Your task to perform on an android device: open sync settings in chrome Image 0: 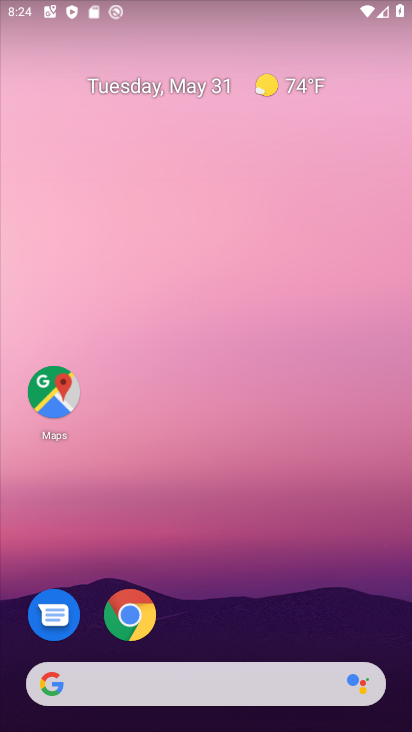
Step 0: click (135, 624)
Your task to perform on an android device: open sync settings in chrome Image 1: 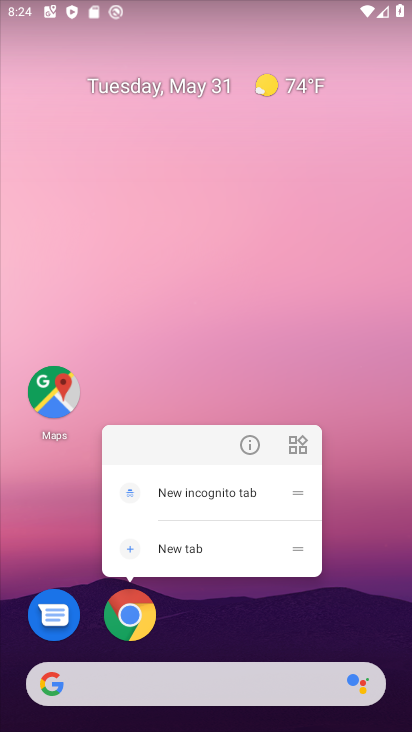
Step 1: click (117, 623)
Your task to perform on an android device: open sync settings in chrome Image 2: 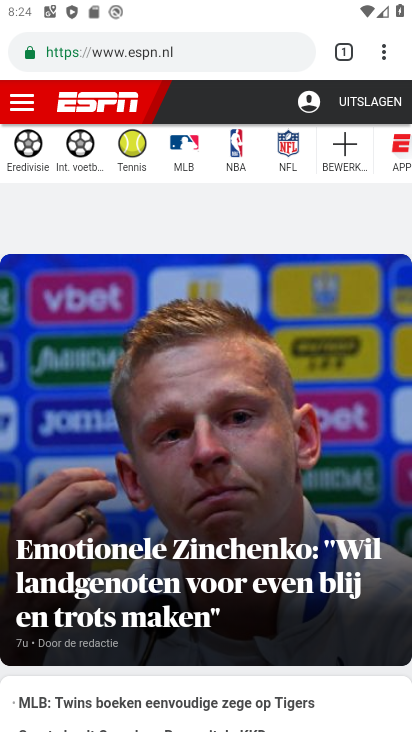
Step 2: drag from (375, 52) to (200, 577)
Your task to perform on an android device: open sync settings in chrome Image 3: 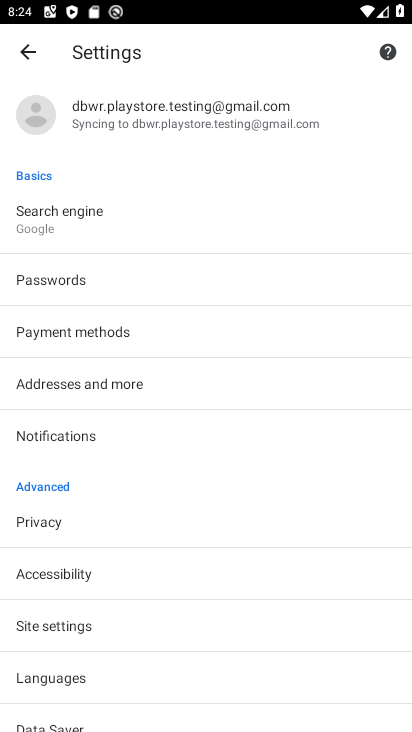
Step 3: click (178, 129)
Your task to perform on an android device: open sync settings in chrome Image 4: 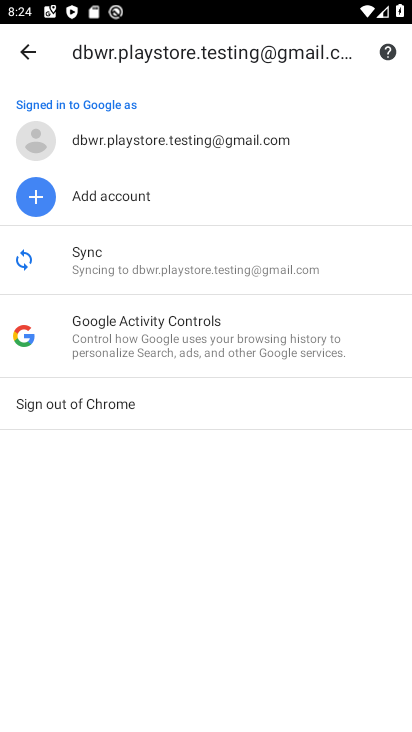
Step 4: click (135, 277)
Your task to perform on an android device: open sync settings in chrome Image 5: 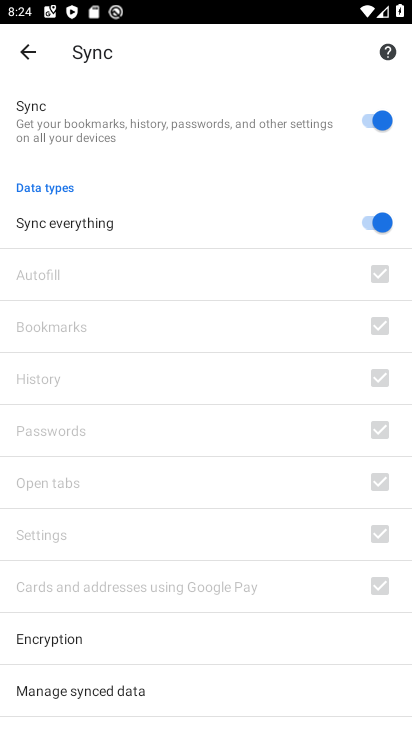
Step 5: task complete